Your task to perform on an android device: What's on my calendar today? Image 0: 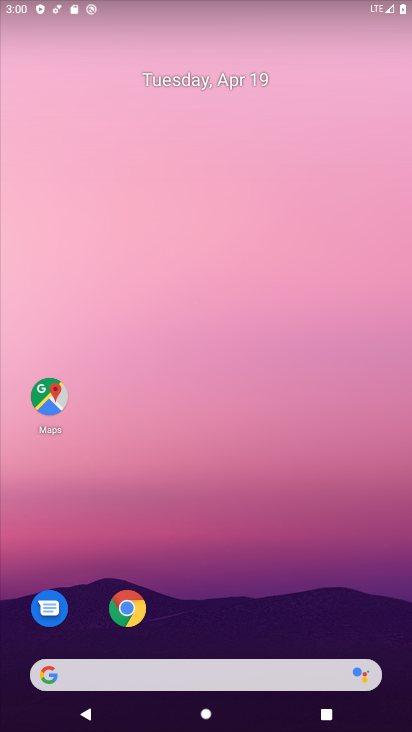
Step 0: drag from (312, 600) to (354, 48)
Your task to perform on an android device: What's on my calendar today? Image 1: 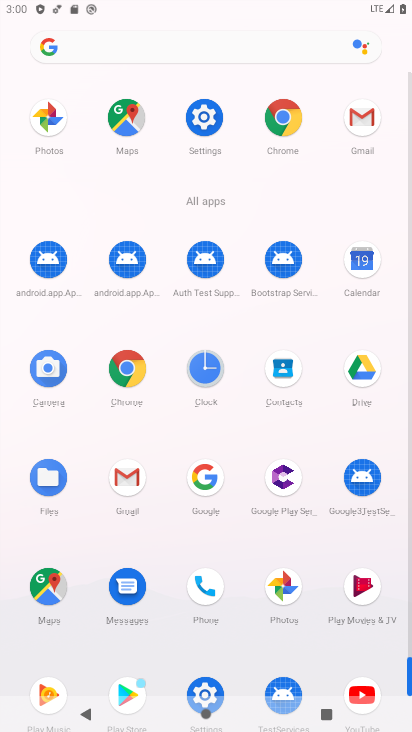
Step 1: click (369, 251)
Your task to perform on an android device: What's on my calendar today? Image 2: 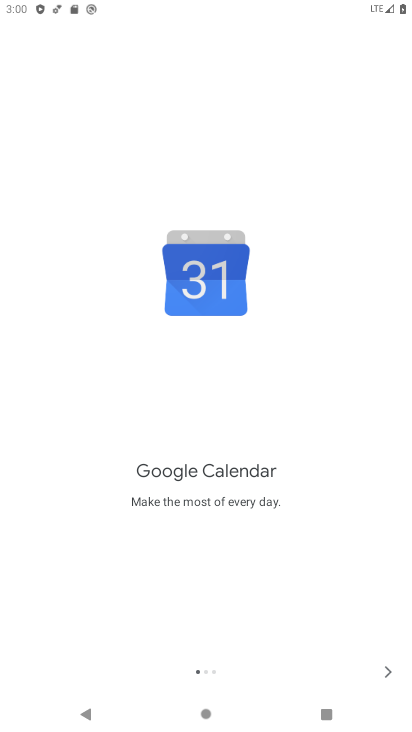
Step 2: click (383, 665)
Your task to perform on an android device: What's on my calendar today? Image 3: 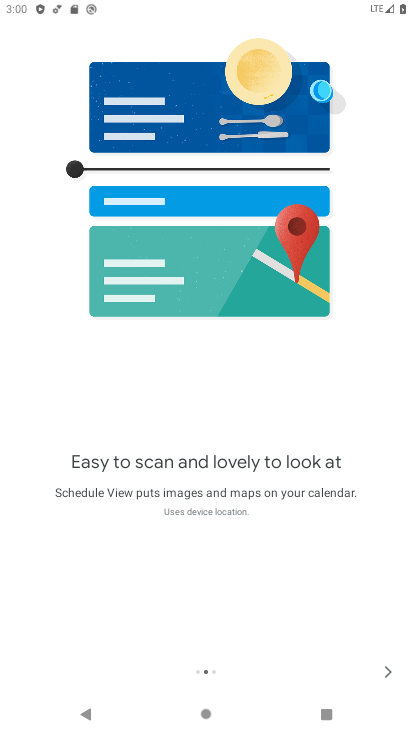
Step 3: click (382, 676)
Your task to perform on an android device: What's on my calendar today? Image 4: 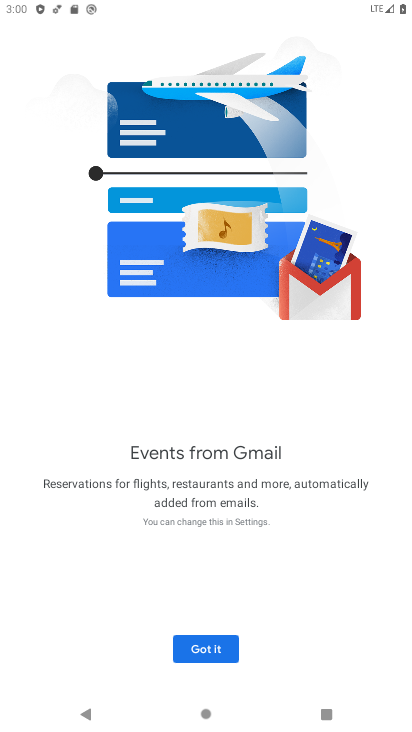
Step 4: click (217, 649)
Your task to perform on an android device: What's on my calendar today? Image 5: 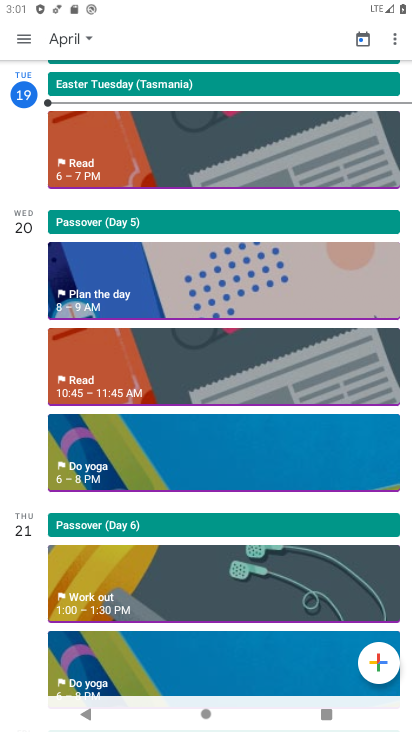
Step 5: drag from (185, 103) to (109, 334)
Your task to perform on an android device: What's on my calendar today? Image 6: 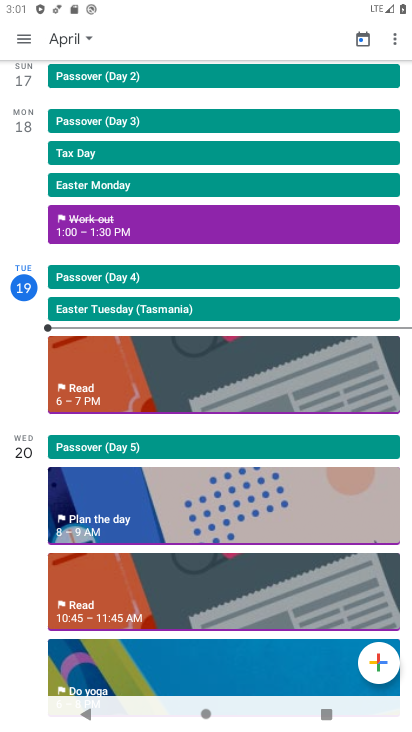
Step 6: click (72, 41)
Your task to perform on an android device: What's on my calendar today? Image 7: 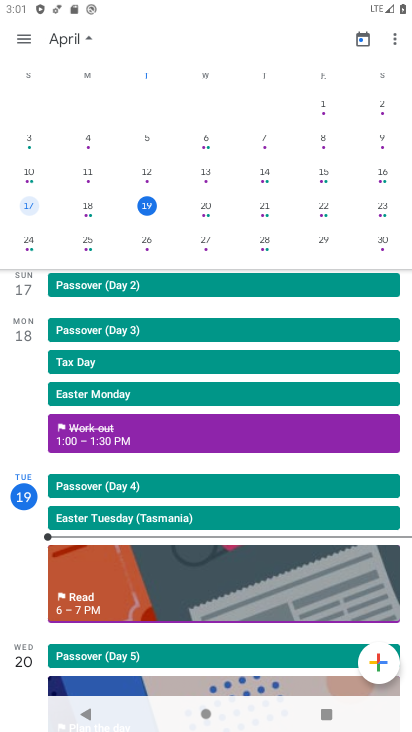
Step 7: task complete